Your task to perform on an android device: Open location settings Image 0: 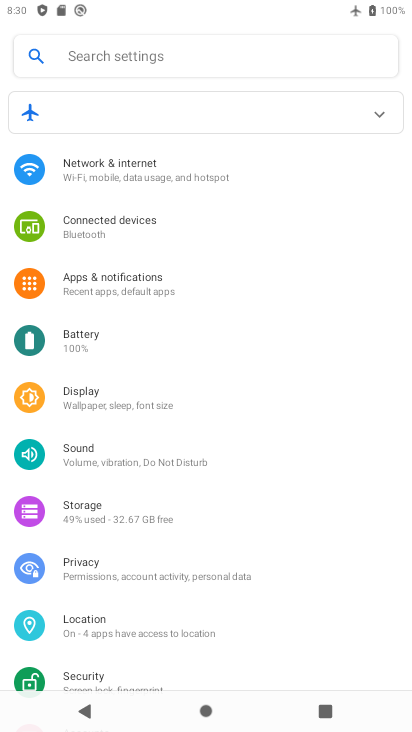
Step 0: click (94, 620)
Your task to perform on an android device: Open location settings Image 1: 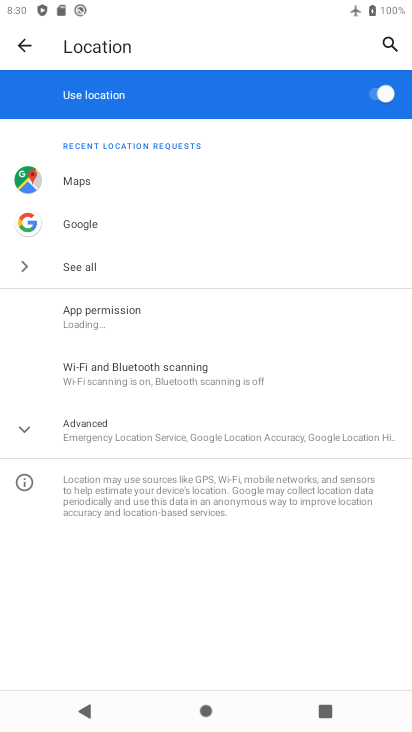
Step 1: task complete